Your task to perform on an android device: check storage Image 0: 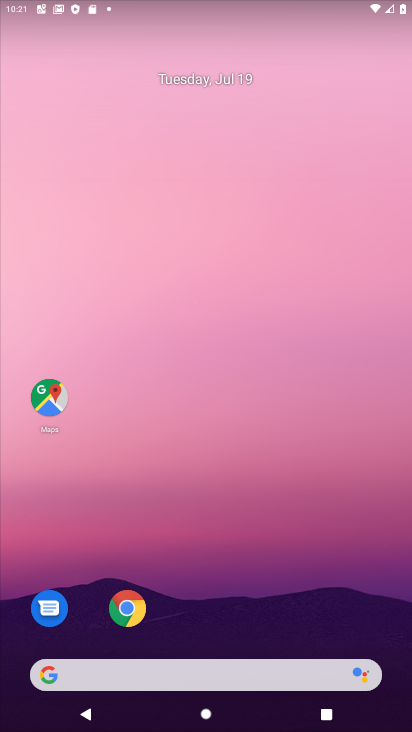
Step 0: drag from (286, 624) to (294, 138)
Your task to perform on an android device: check storage Image 1: 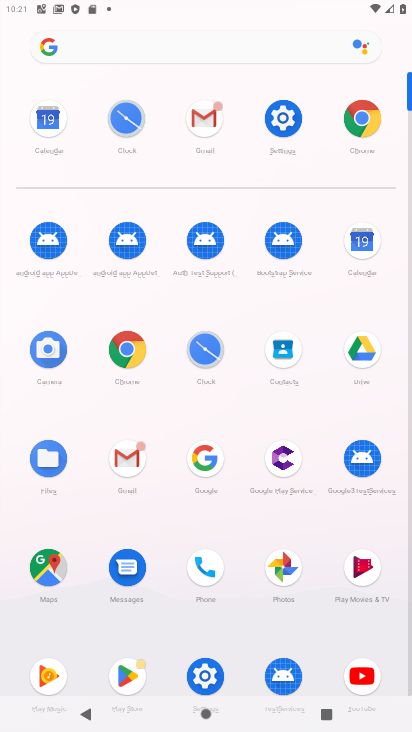
Step 1: click (283, 108)
Your task to perform on an android device: check storage Image 2: 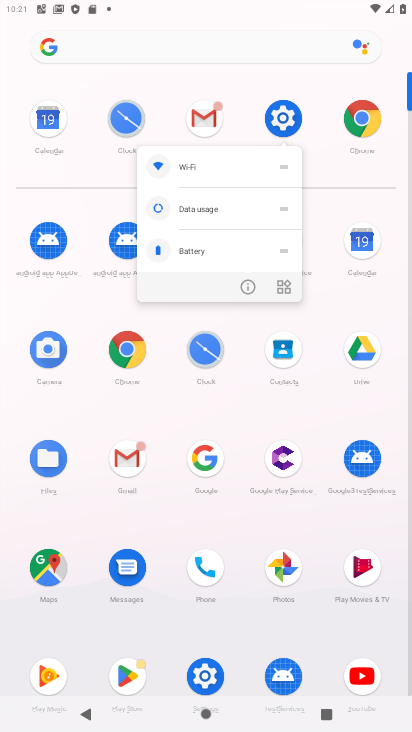
Step 2: click (283, 108)
Your task to perform on an android device: check storage Image 3: 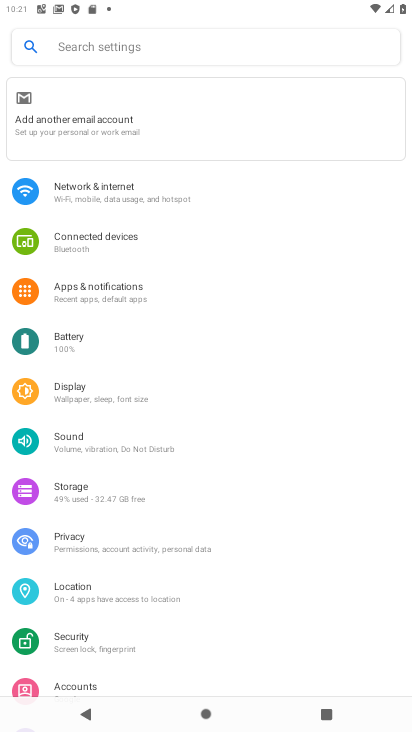
Step 3: click (86, 501)
Your task to perform on an android device: check storage Image 4: 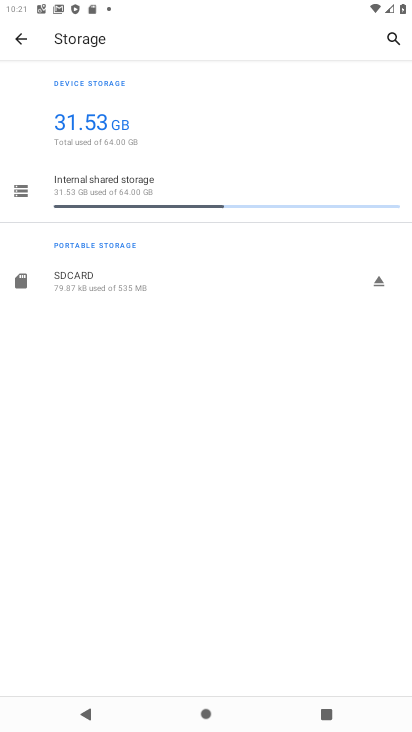
Step 4: task complete